Your task to perform on an android device: Do I have any events tomorrow? Image 0: 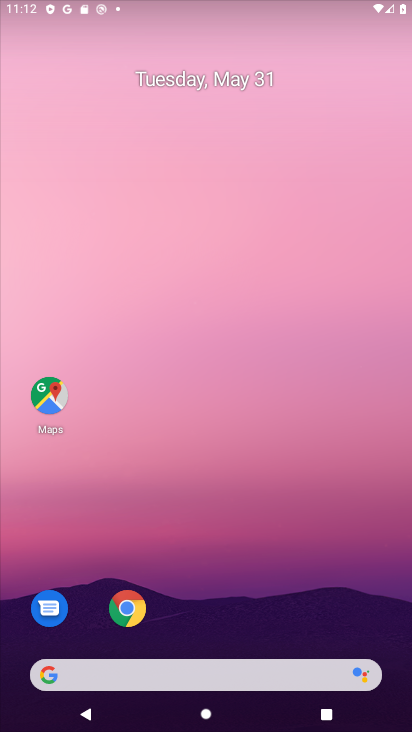
Step 0: press home button
Your task to perform on an android device: Do I have any events tomorrow? Image 1: 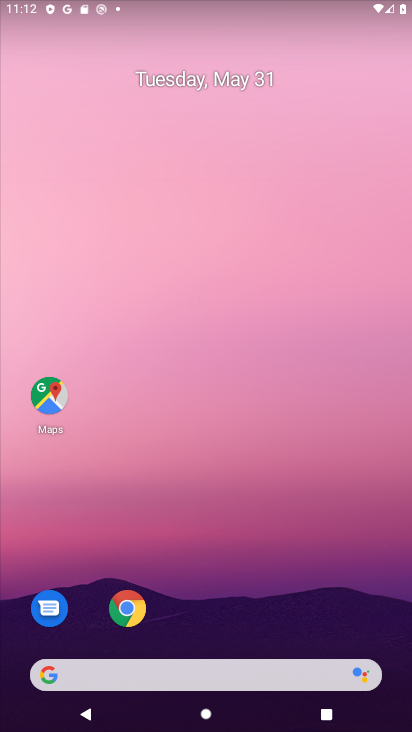
Step 1: drag from (287, 611) to (275, 95)
Your task to perform on an android device: Do I have any events tomorrow? Image 2: 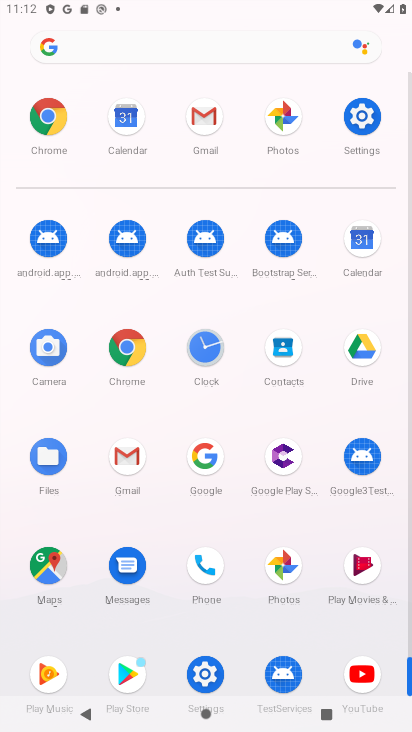
Step 2: click (371, 247)
Your task to perform on an android device: Do I have any events tomorrow? Image 3: 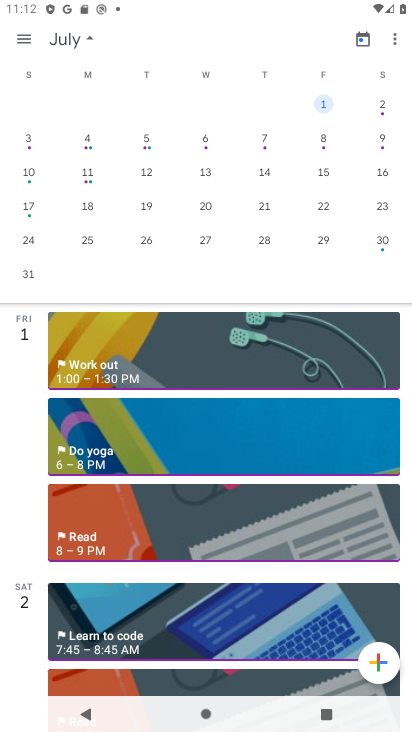
Step 3: drag from (126, 187) to (374, 192)
Your task to perform on an android device: Do I have any events tomorrow? Image 4: 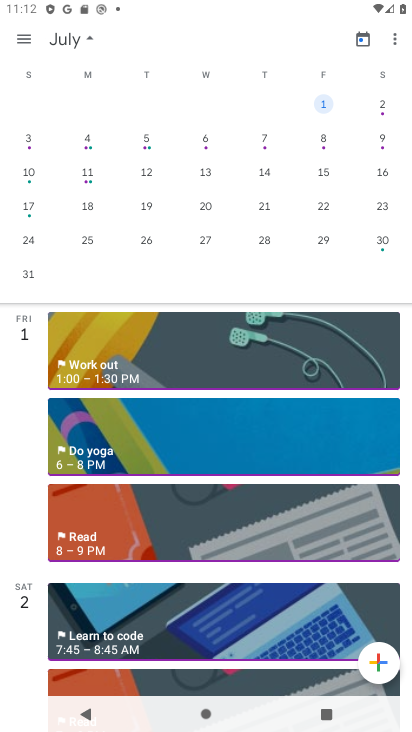
Step 4: click (386, 100)
Your task to perform on an android device: Do I have any events tomorrow? Image 5: 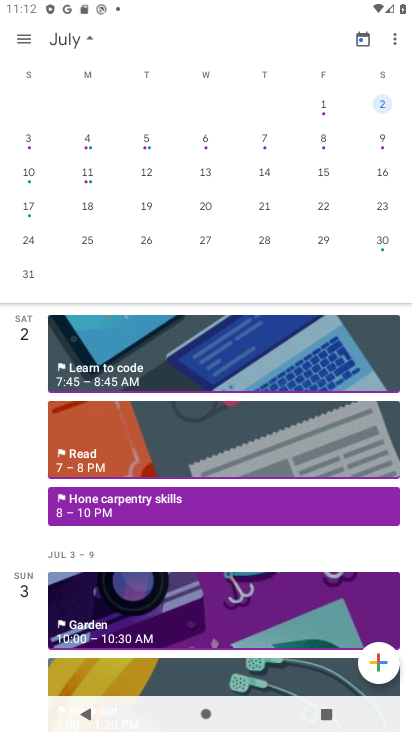
Step 5: drag from (15, 215) to (2, 317)
Your task to perform on an android device: Do I have any events tomorrow? Image 6: 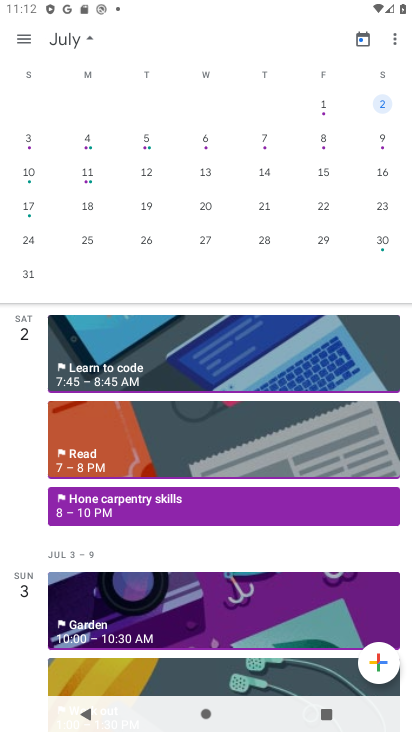
Step 6: drag from (115, 178) to (411, 167)
Your task to perform on an android device: Do I have any events tomorrow? Image 7: 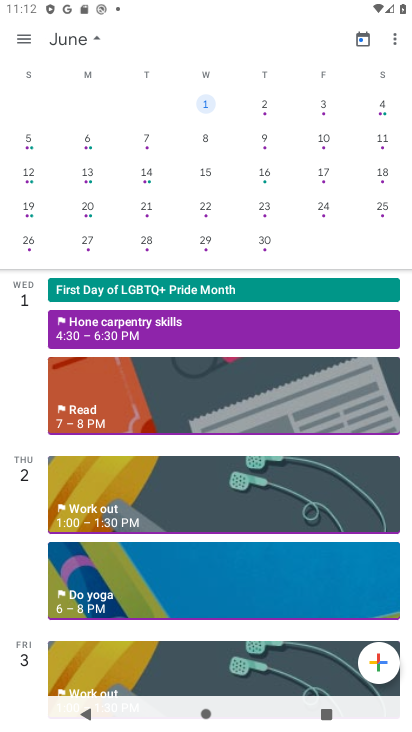
Step 7: click (257, 105)
Your task to perform on an android device: Do I have any events tomorrow? Image 8: 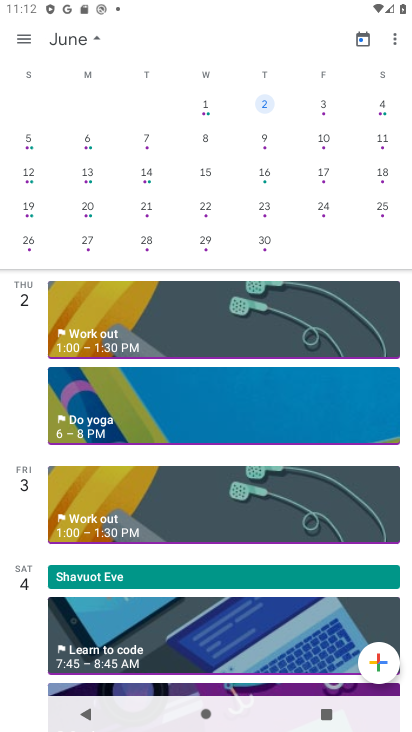
Step 8: click (101, 42)
Your task to perform on an android device: Do I have any events tomorrow? Image 9: 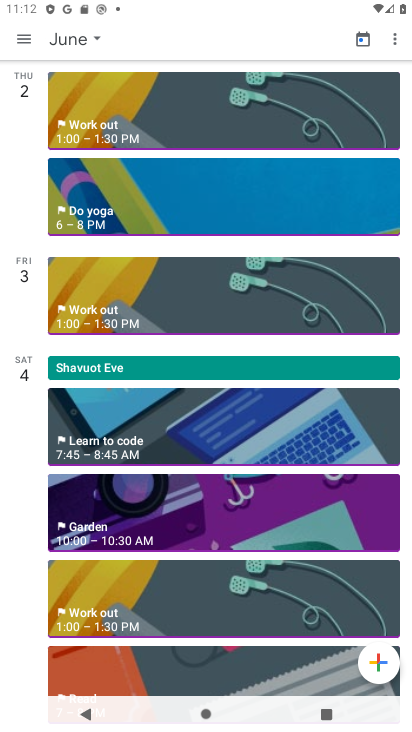
Step 9: task complete